Your task to perform on an android device: turn on airplane mode Image 0: 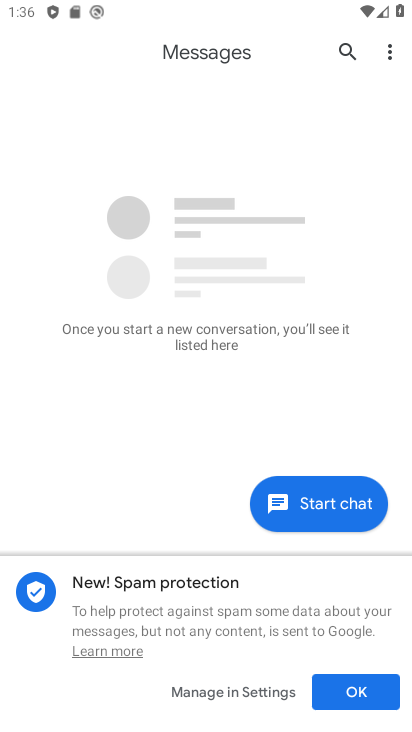
Step 0: press home button
Your task to perform on an android device: turn on airplane mode Image 1: 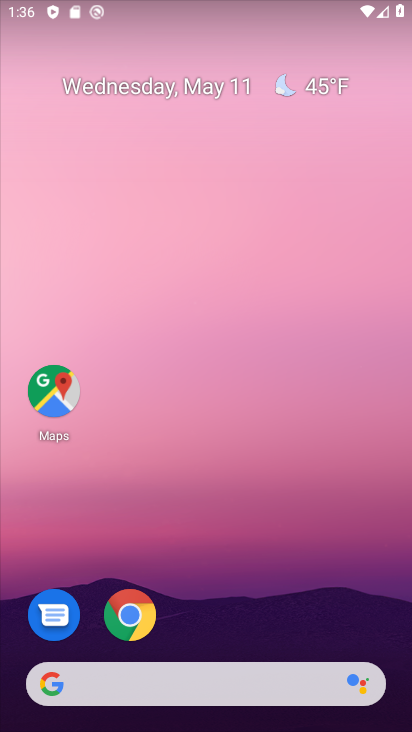
Step 1: drag from (179, 678) to (157, 199)
Your task to perform on an android device: turn on airplane mode Image 2: 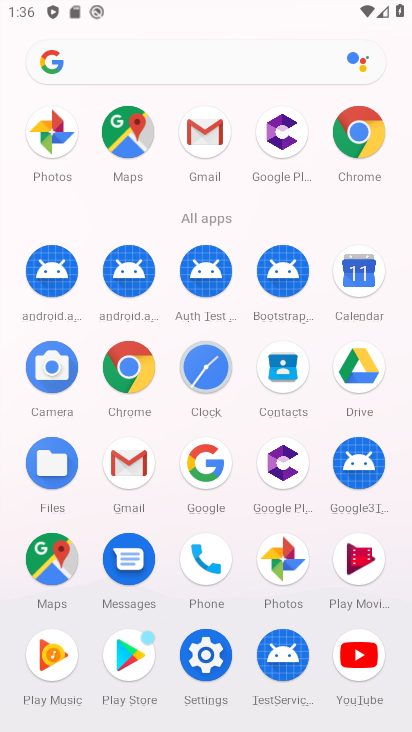
Step 2: click (201, 645)
Your task to perform on an android device: turn on airplane mode Image 3: 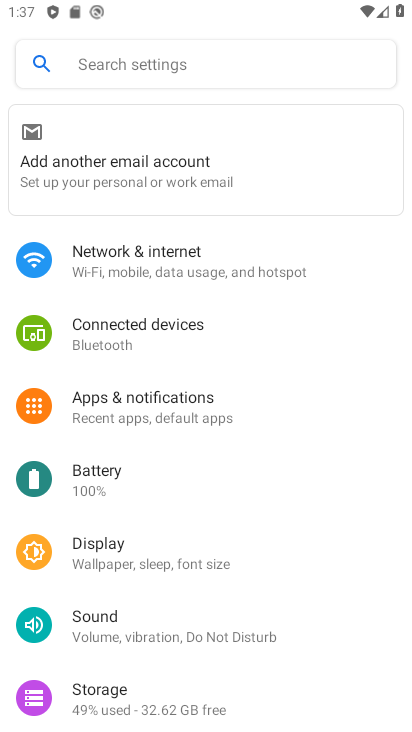
Step 3: click (128, 258)
Your task to perform on an android device: turn on airplane mode Image 4: 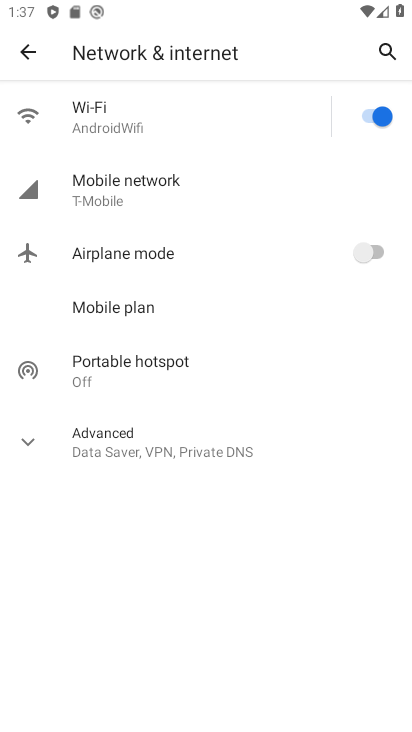
Step 4: click (379, 250)
Your task to perform on an android device: turn on airplane mode Image 5: 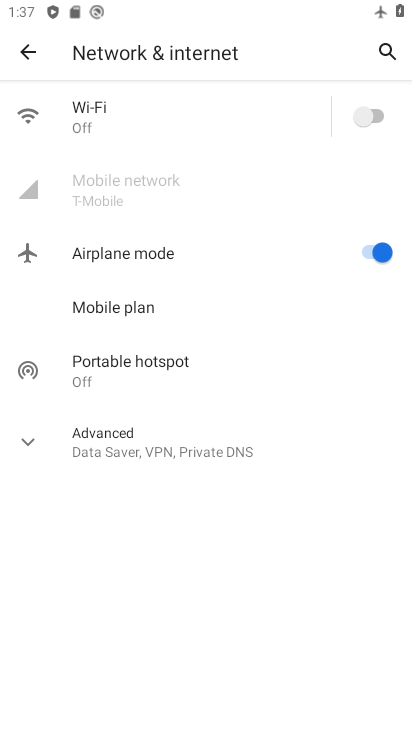
Step 5: task complete